Your task to perform on an android device: visit the assistant section in the google photos Image 0: 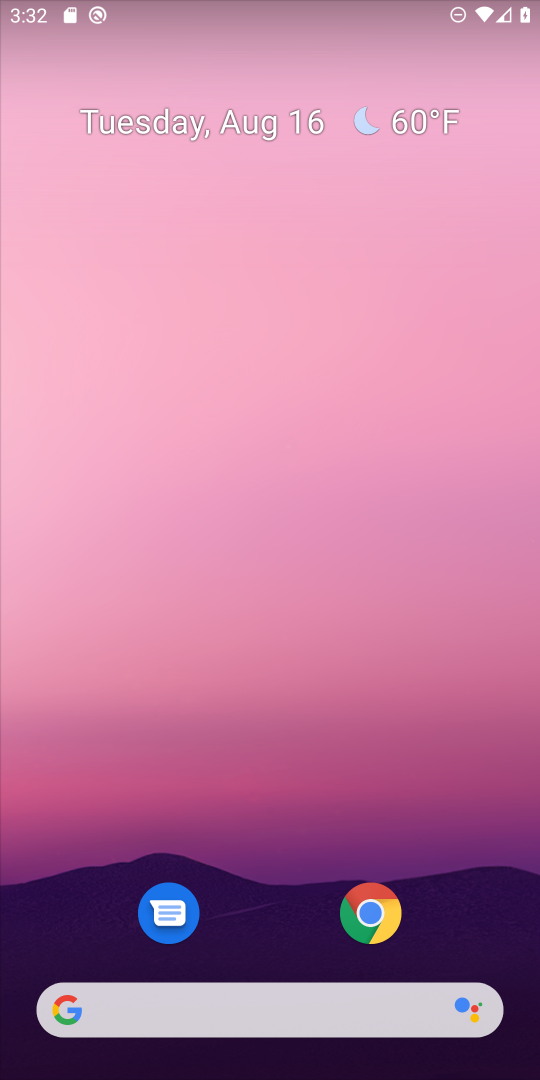
Step 0: drag from (517, 968) to (430, 232)
Your task to perform on an android device: visit the assistant section in the google photos Image 1: 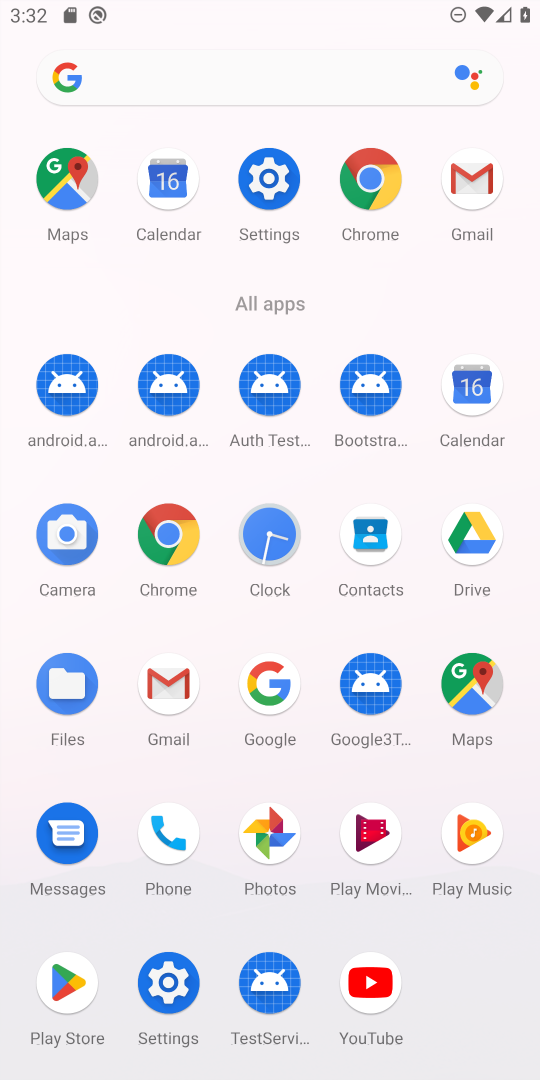
Step 1: click (272, 836)
Your task to perform on an android device: visit the assistant section in the google photos Image 2: 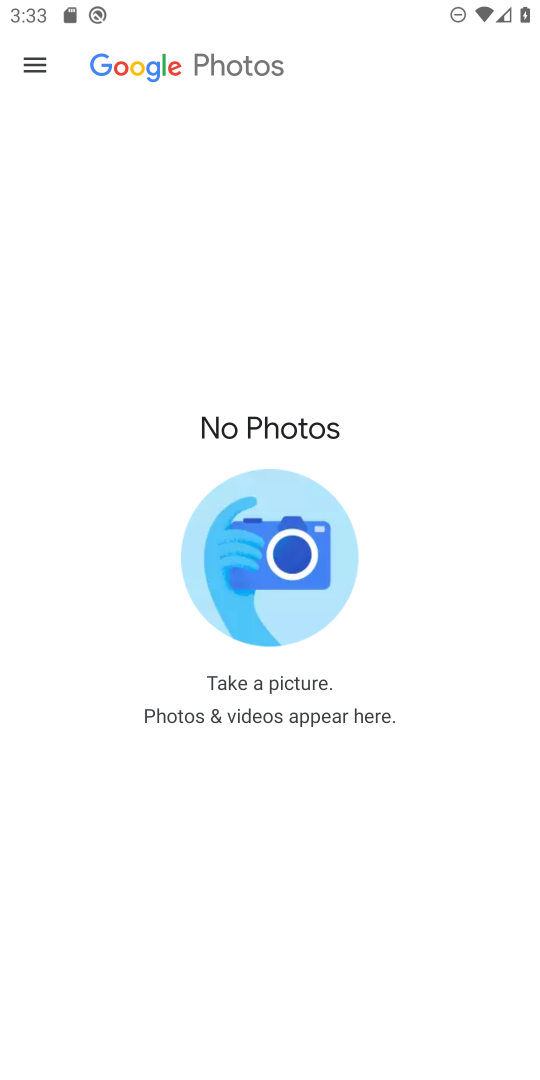
Step 2: click (35, 66)
Your task to perform on an android device: visit the assistant section in the google photos Image 3: 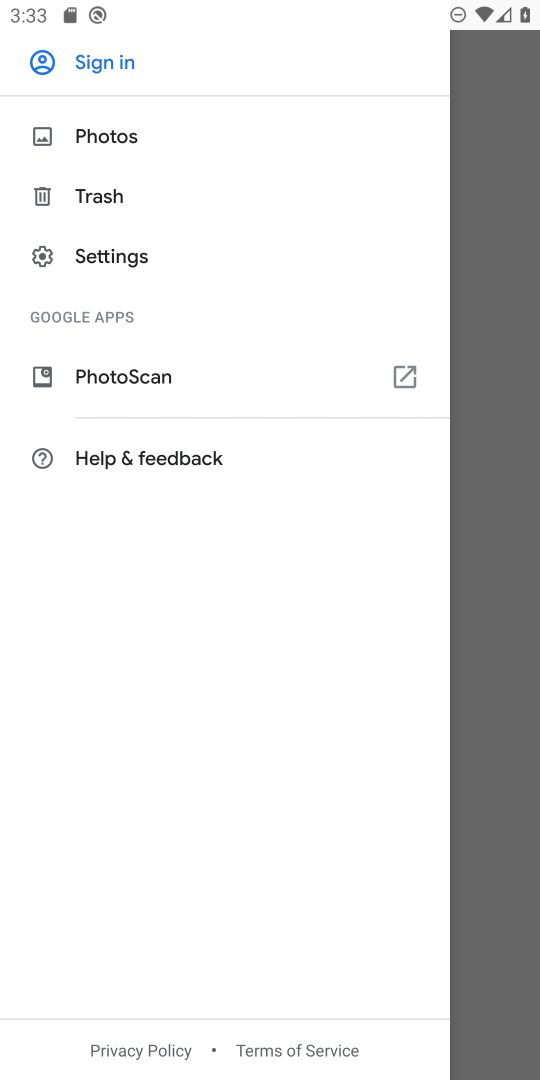
Step 3: click (90, 139)
Your task to perform on an android device: visit the assistant section in the google photos Image 4: 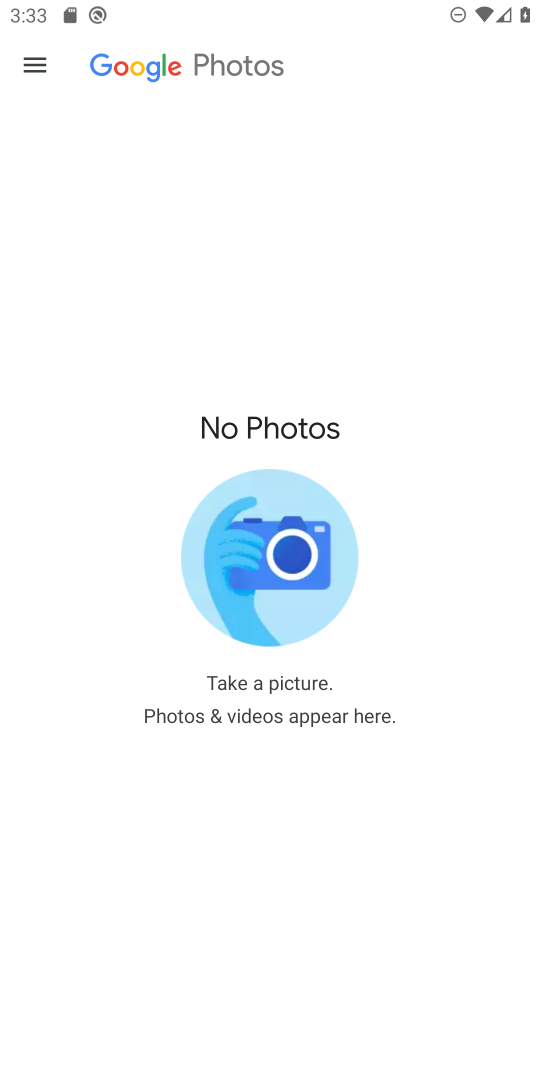
Step 4: task complete